Your task to perform on an android device: Open settings on Google Maps Image 0: 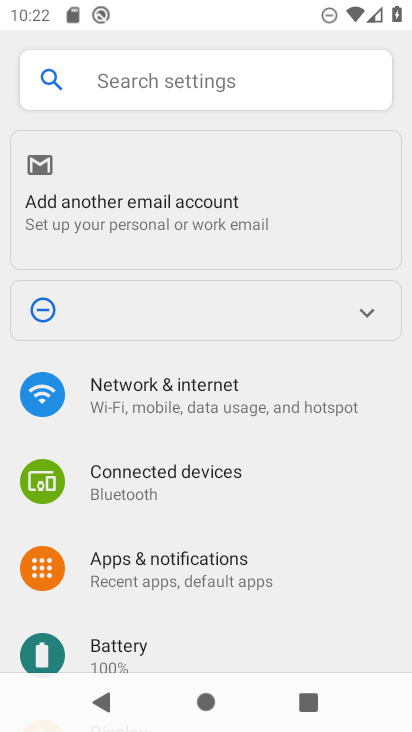
Step 0: press home button
Your task to perform on an android device: Open settings on Google Maps Image 1: 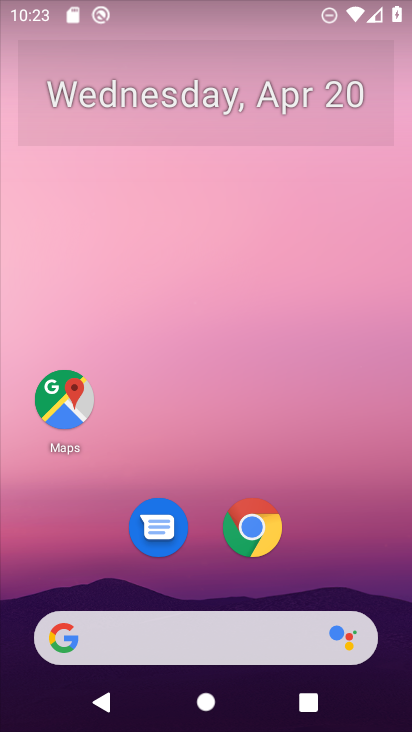
Step 1: click (64, 404)
Your task to perform on an android device: Open settings on Google Maps Image 2: 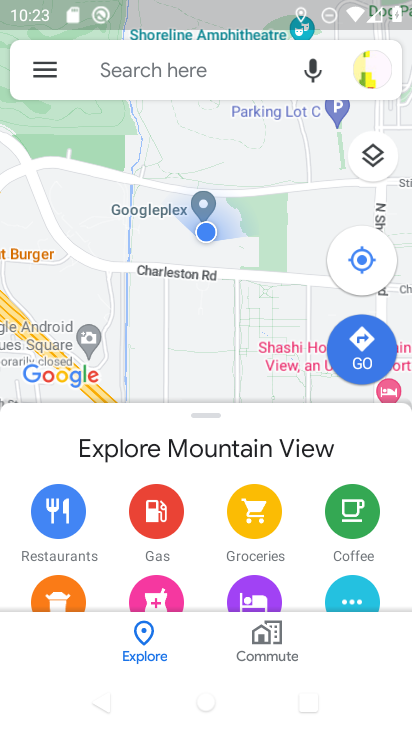
Step 2: click (38, 69)
Your task to perform on an android device: Open settings on Google Maps Image 3: 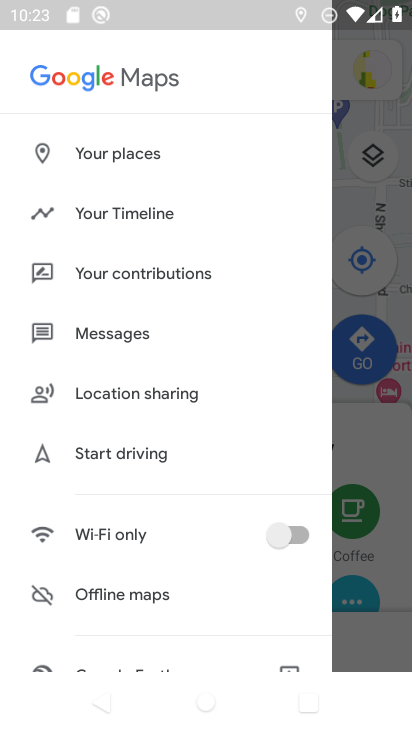
Step 3: drag from (110, 520) to (233, 145)
Your task to perform on an android device: Open settings on Google Maps Image 4: 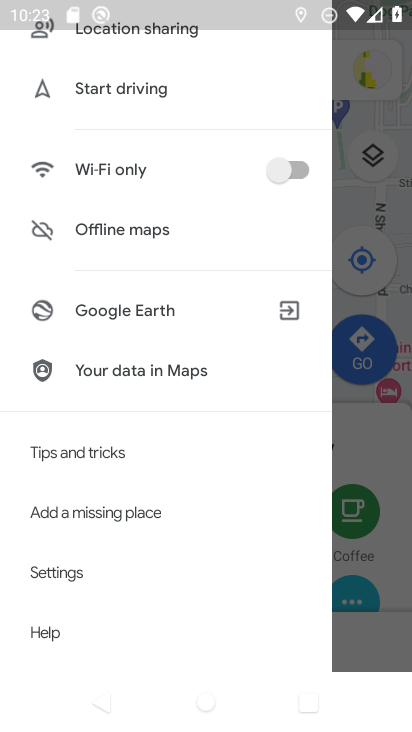
Step 4: drag from (144, 559) to (178, 349)
Your task to perform on an android device: Open settings on Google Maps Image 5: 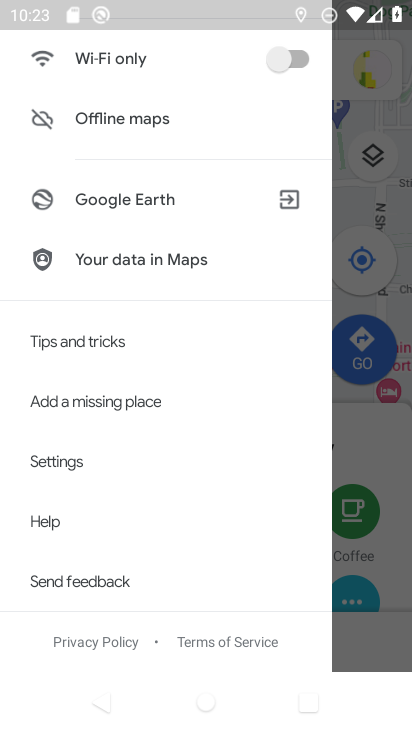
Step 5: click (64, 463)
Your task to perform on an android device: Open settings on Google Maps Image 6: 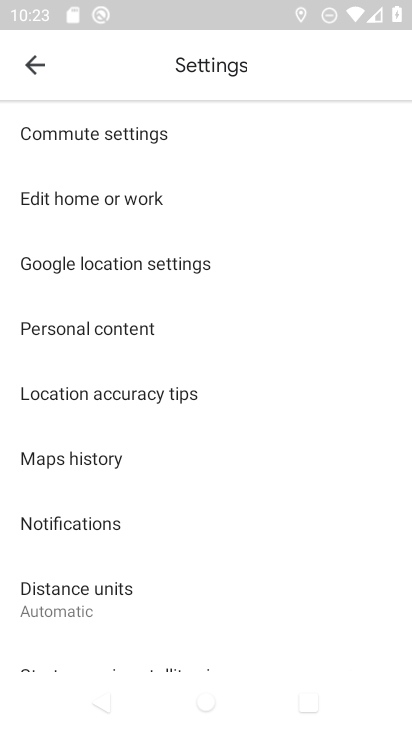
Step 6: task complete